Your task to perform on an android device: Open Google Chrome and click the shortcut for Amazon.com Image 0: 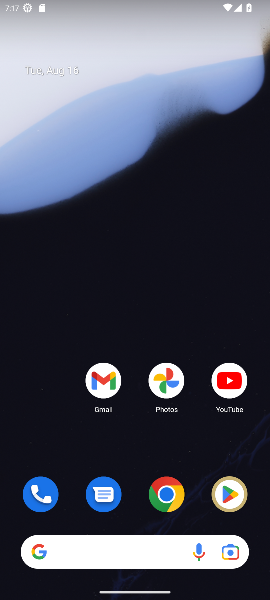
Step 0: drag from (55, 349) to (68, 150)
Your task to perform on an android device: Open Google Chrome and click the shortcut for Amazon.com Image 1: 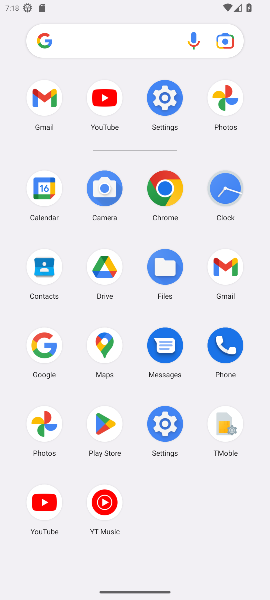
Step 1: click (46, 343)
Your task to perform on an android device: Open Google Chrome and click the shortcut for Amazon.com Image 2: 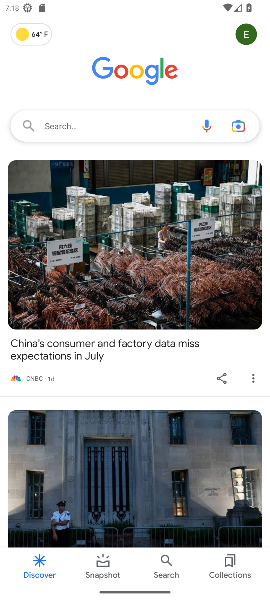
Step 2: click (77, 118)
Your task to perform on an android device: Open Google Chrome and click the shortcut for Amazon.com Image 3: 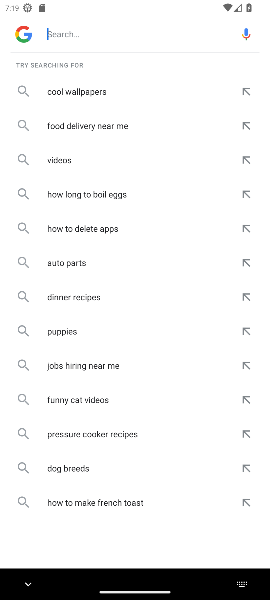
Step 3: click (52, 30)
Your task to perform on an android device: Open Google Chrome and click the shortcut for Amazon.com Image 4: 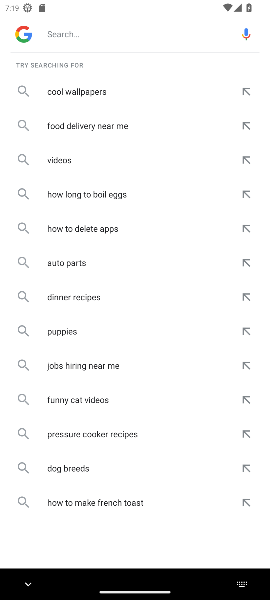
Step 4: type "Amazon.com"
Your task to perform on an android device: Open Google Chrome and click the shortcut for Amazon.com Image 5: 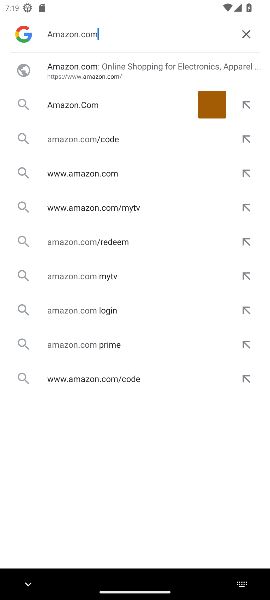
Step 5: press enter
Your task to perform on an android device: Open Google Chrome and click the shortcut for Amazon.com Image 6: 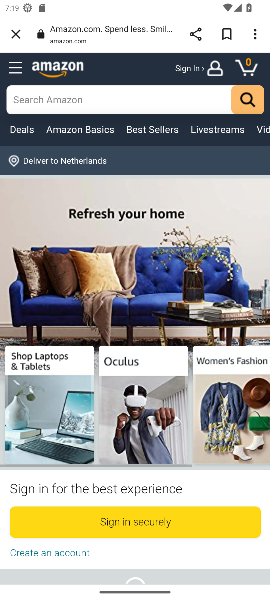
Step 6: task complete